Your task to perform on an android device: Go to Amazon Image 0: 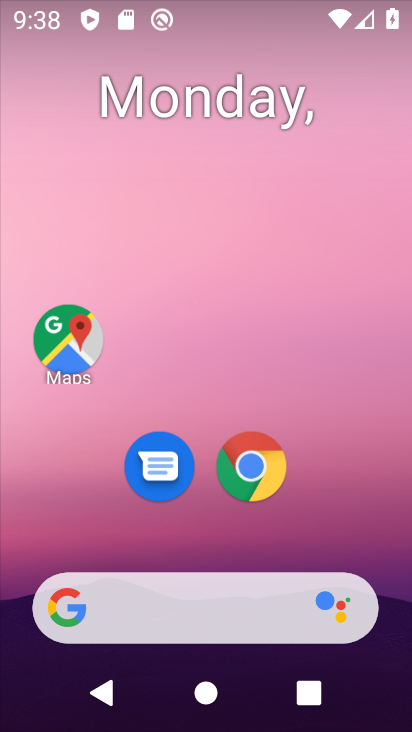
Step 0: click (252, 457)
Your task to perform on an android device: Go to Amazon Image 1: 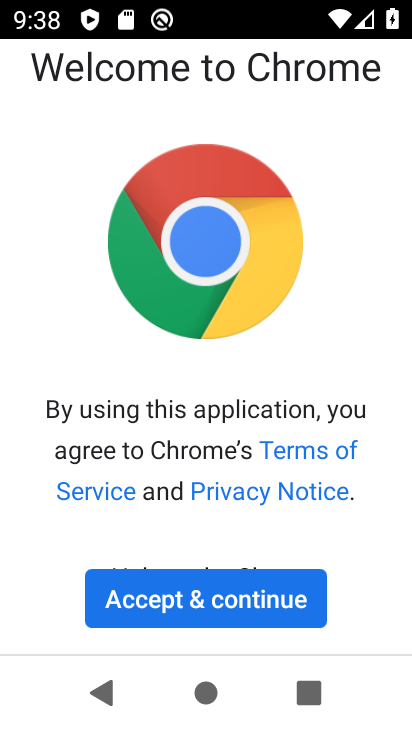
Step 1: click (184, 593)
Your task to perform on an android device: Go to Amazon Image 2: 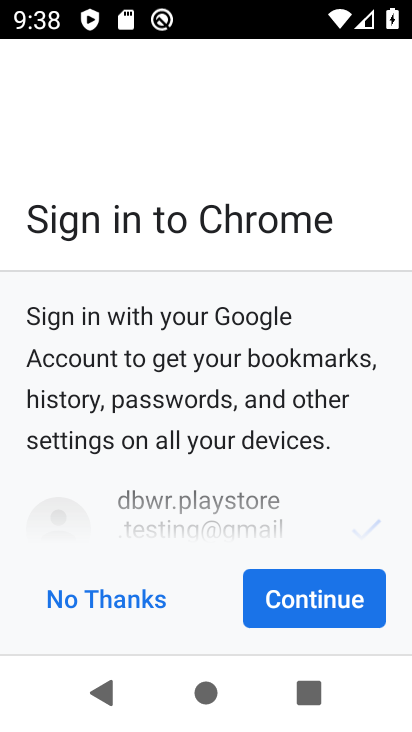
Step 2: click (289, 596)
Your task to perform on an android device: Go to Amazon Image 3: 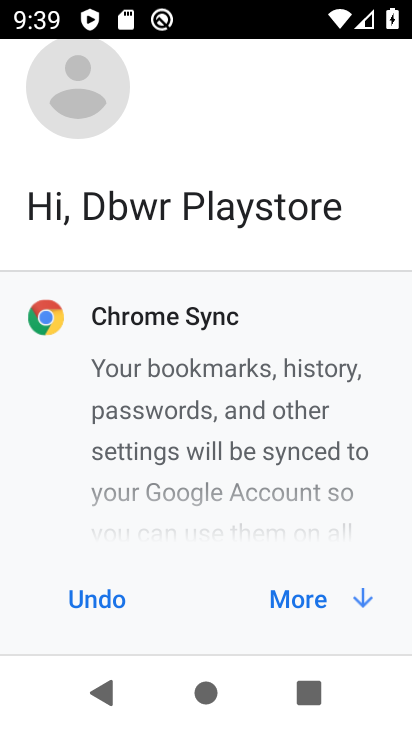
Step 3: click (329, 592)
Your task to perform on an android device: Go to Amazon Image 4: 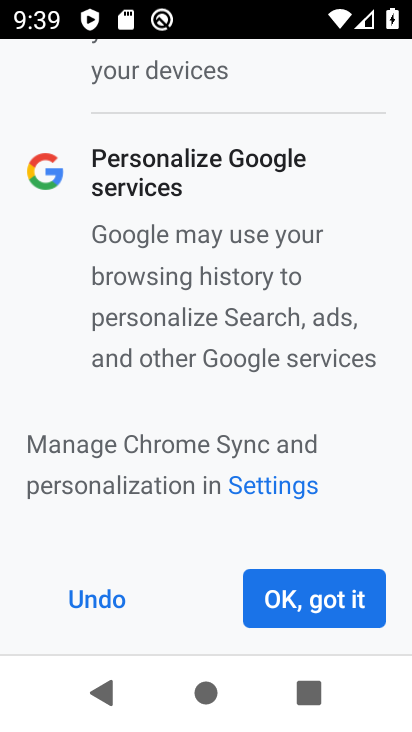
Step 4: click (293, 607)
Your task to perform on an android device: Go to Amazon Image 5: 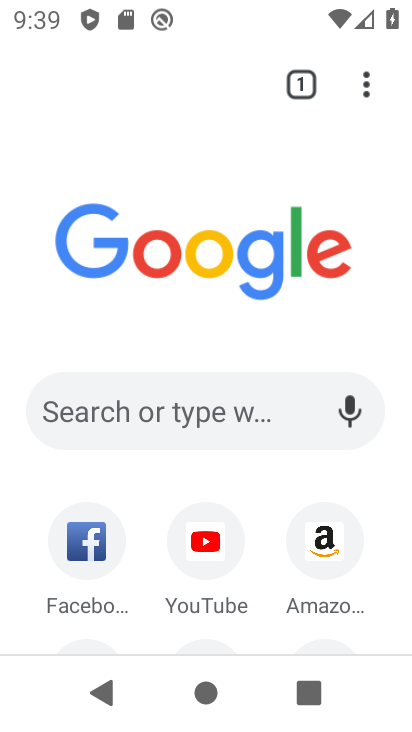
Step 5: click (204, 402)
Your task to perform on an android device: Go to Amazon Image 6: 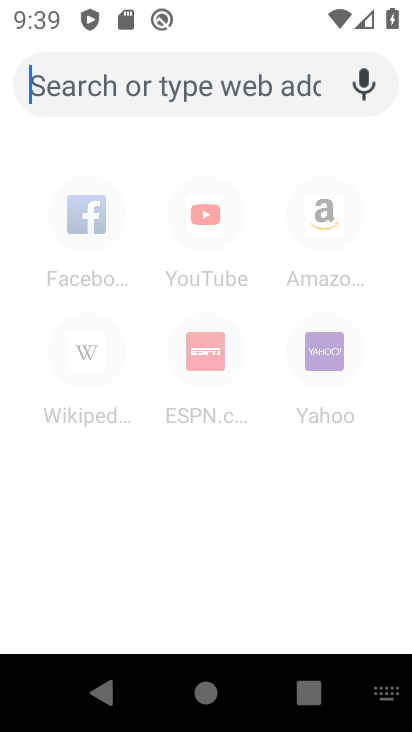
Step 6: type "Amazon"
Your task to perform on an android device: Go to Amazon Image 7: 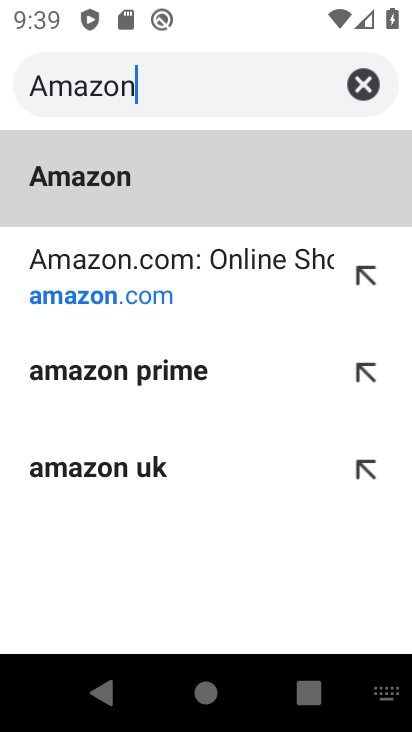
Step 7: click (220, 199)
Your task to perform on an android device: Go to Amazon Image 8: 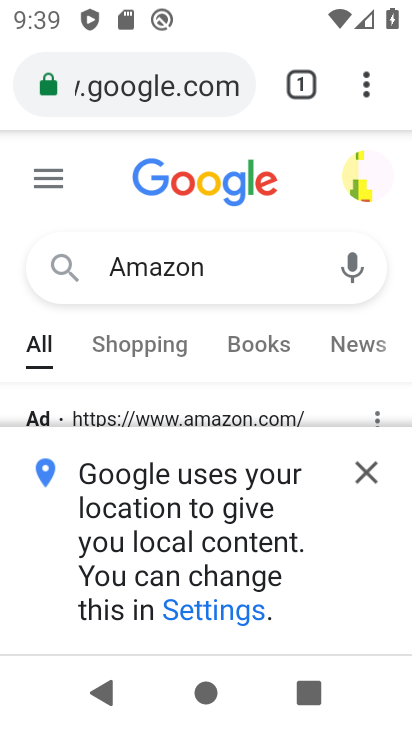
Step 8: click (375, 465)
Your task to perform on an android device: Go to Amazon Image 9: 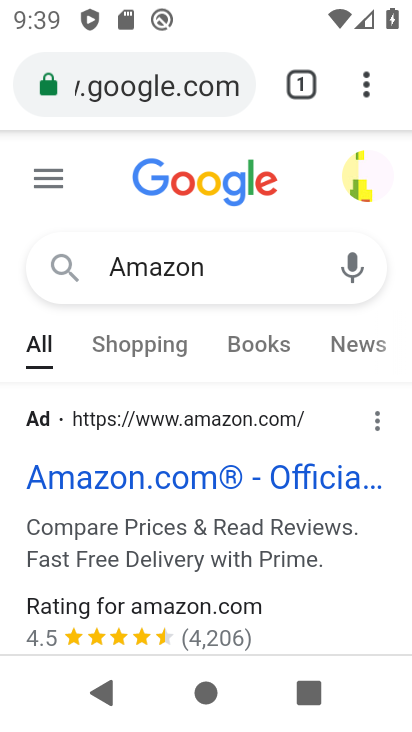
Step 9: task complete